Your task to perform on an android device: Is it going to rain this weekend? Image 0: 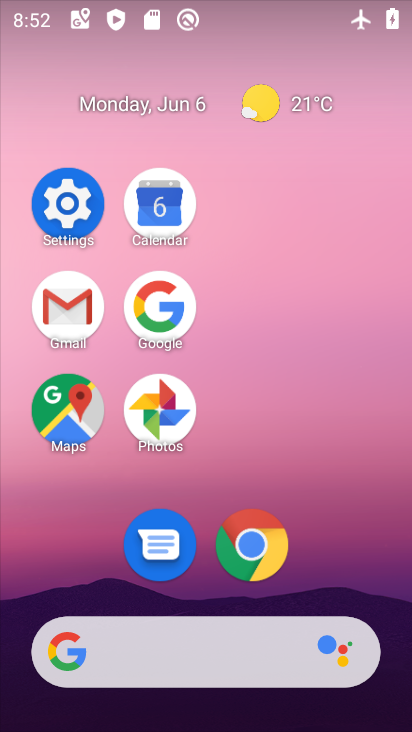
Step 0: click (170, 310)
Your task to perform on an android device: Is it going to rain this weekend? Image 1: 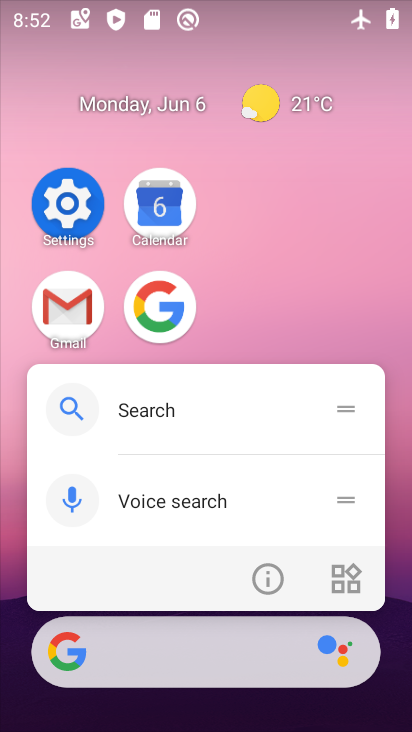
Step 1: click (170, 310)
Your task to perform on an android device: Is it going to rain this weekend? Image 2: 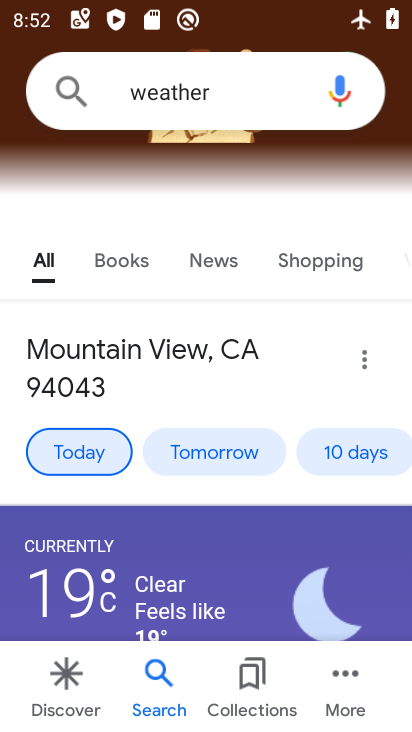
Step 2: click (384, 470)
Your task to perform on an android device: Is it going to rain this weekend? Image 3: 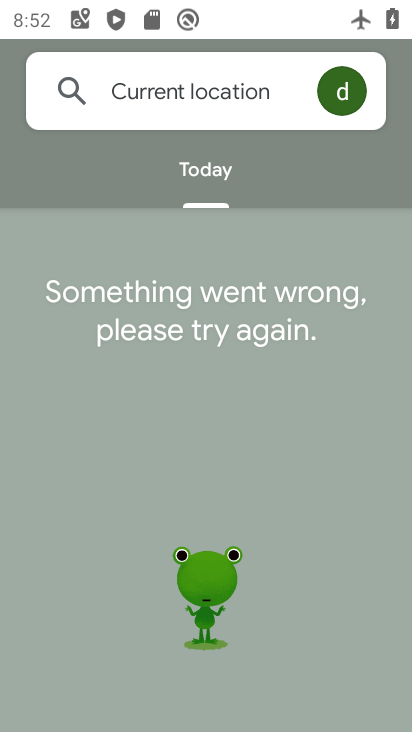
Step 3: task complete